Your task to perform on an android device: Go to sound settings Image 0: 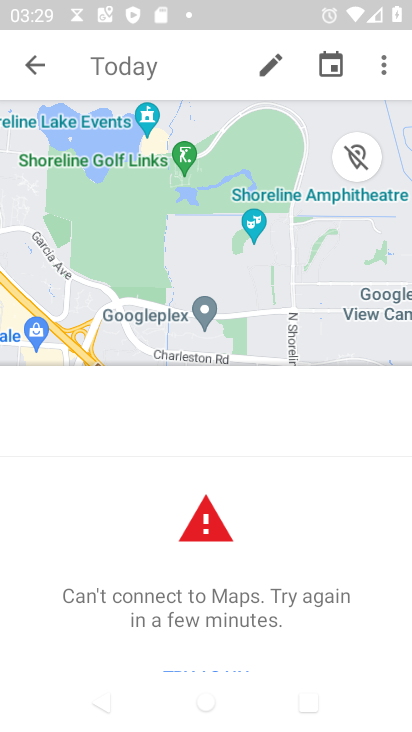
Step 0: press back button
Your task to perform on an android device: Go to sound settings Image 1: 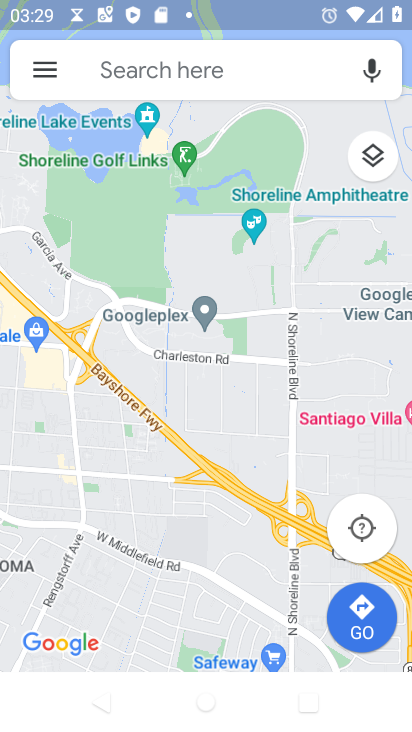
Step 1: press back button
Your task to perform on an android device: Go to sound settings Image 2: 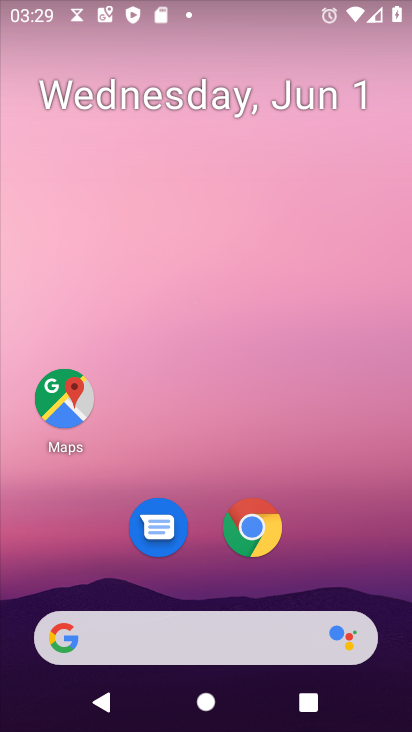
Step 2: drag from (329, 563) to (218, 80)
Your task to perform on an android device: Go to sound settings Image 3: 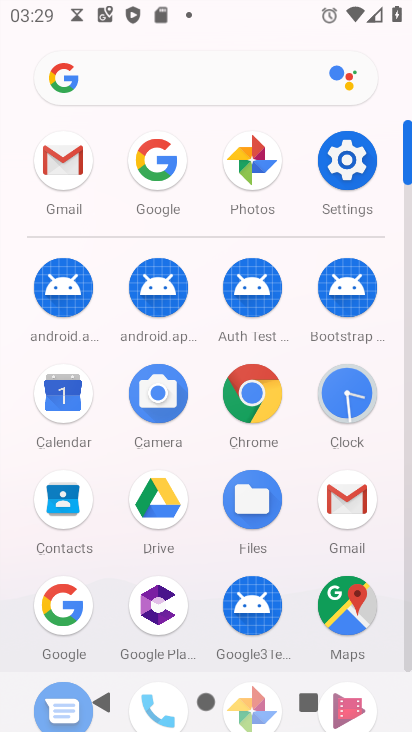
Step 3: click (348, 158)
Your task to perform on an android device: Go to sound settings Image 4: 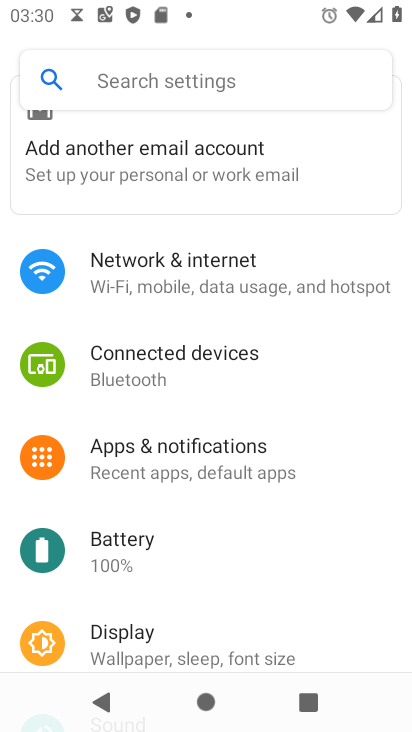
Step 4: drag from (177, 592) to (194, 500)
Your task to perform on an android device: Go to sound settings Image 5: 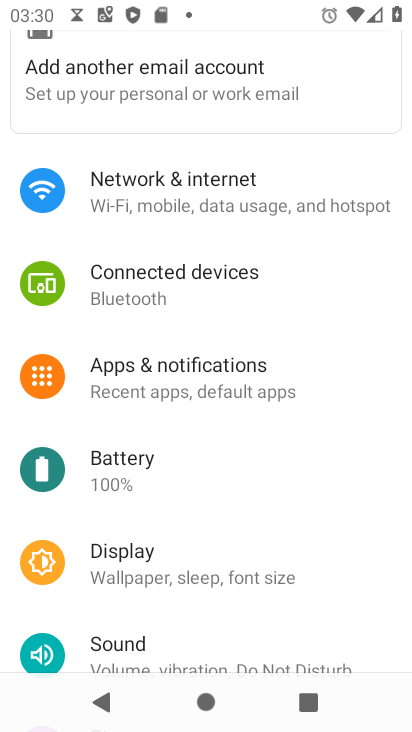
Step 5: drag from (167, 634) to (256, 522)
Your task to perform on an android device: Go to sound settings Image 6: 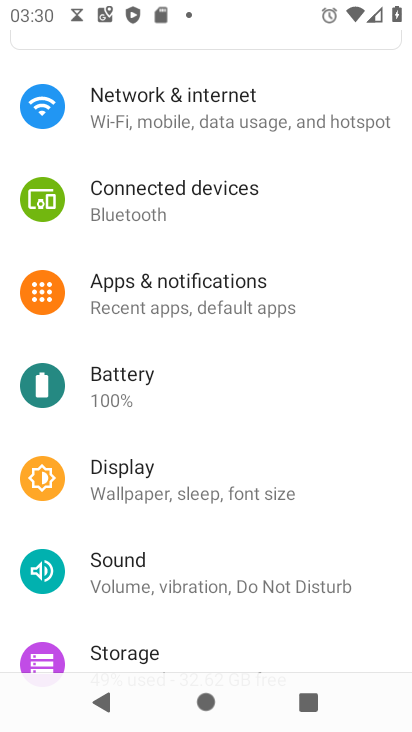
Step 6: click (167, 589)
Your task to perform on an android device: Go to sound settings Image 7: 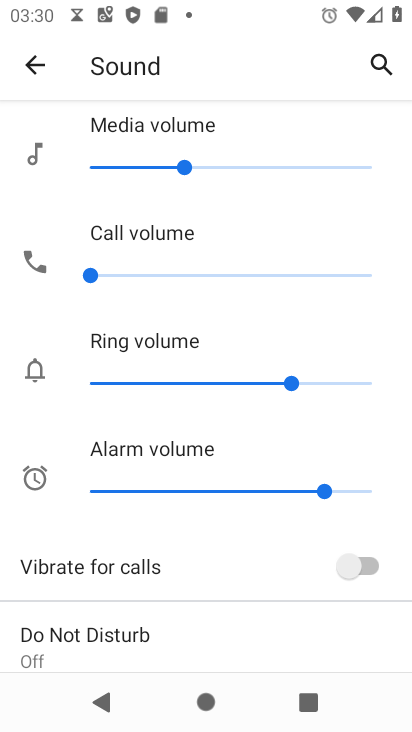
Step 7: task complete